Your task to perform on an android device: toggle notifications settings in the gmail app Image 0: 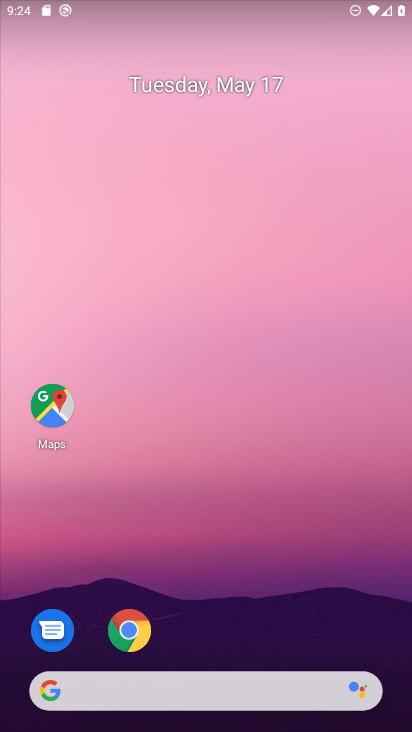
Step 0: drag from (361, 623) to (348, 197)
Your task to perform on an android device: toggle notifications settings in the gmail app Image 1: 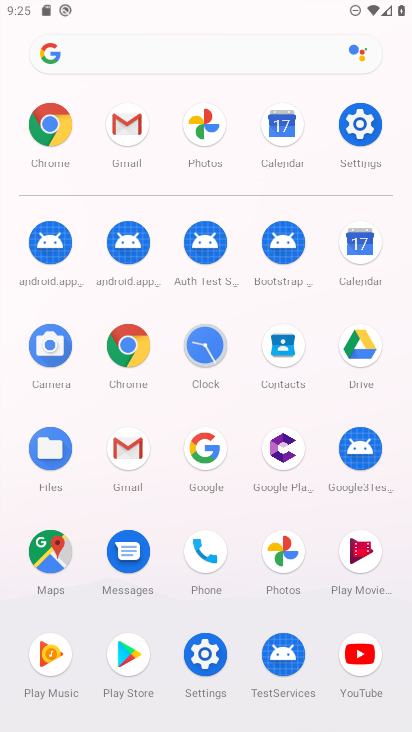
Step 1: click (128, 455)
Your task to perform on an android device: toggle notifications settings in the gmail app Image 2: 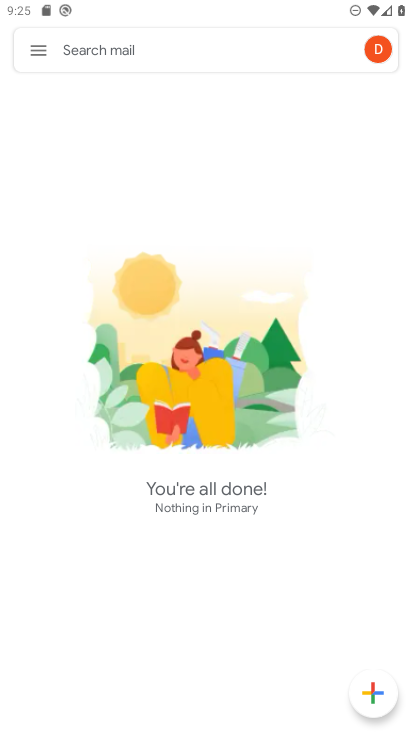
Step 2: click (42, 51)
Your task to perform on an android device: toggle notifications settings in the gmail app Image 3: 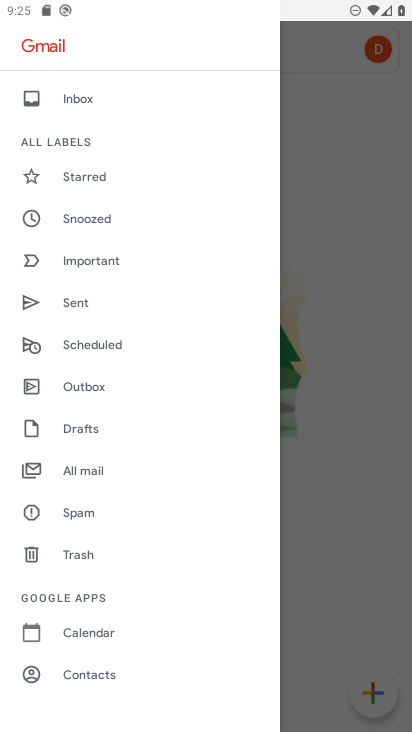
Step 3: drag from (174, 612) to (191, 449)
Your task to perform on an android device: toggle notifications settings in the gmail app Image 4: 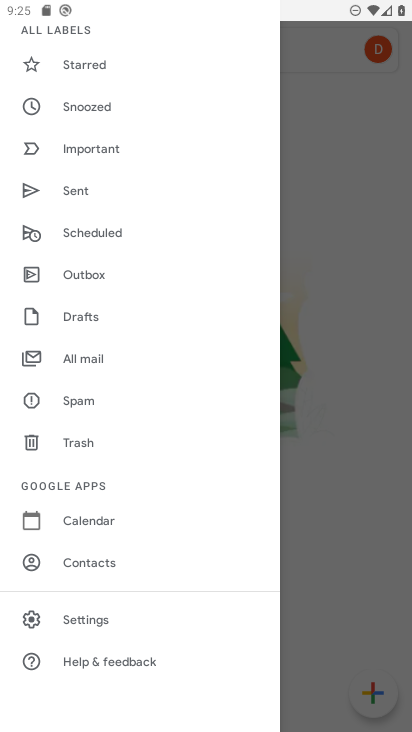
Step 4: click (105, 619)
Your task to perform on an android device: toggle notifications settings in the gmail app Image 5: 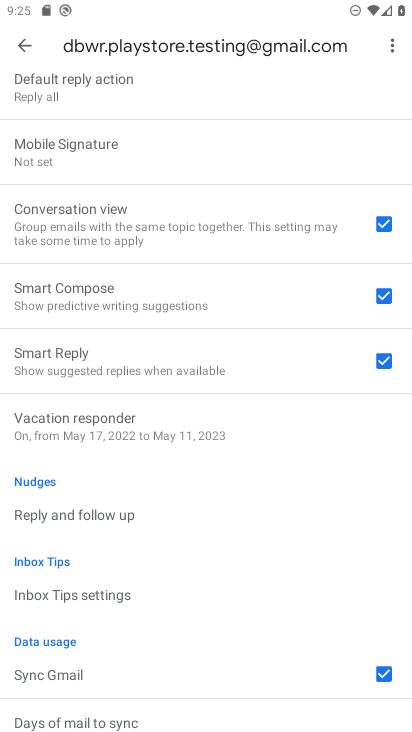
Step 5: drag from (258, 573) to (267, 480)
Your task to perform on an android device: toggle notifications settings in the gmail app Image 6: 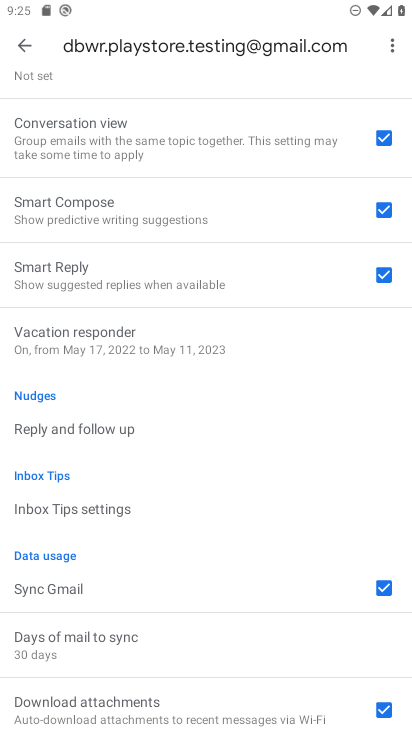
Step 6: drag from (266, 650) to (264, 471)
Your task to perform on an android device: toggle notifications settings in the gmail app Image 7: 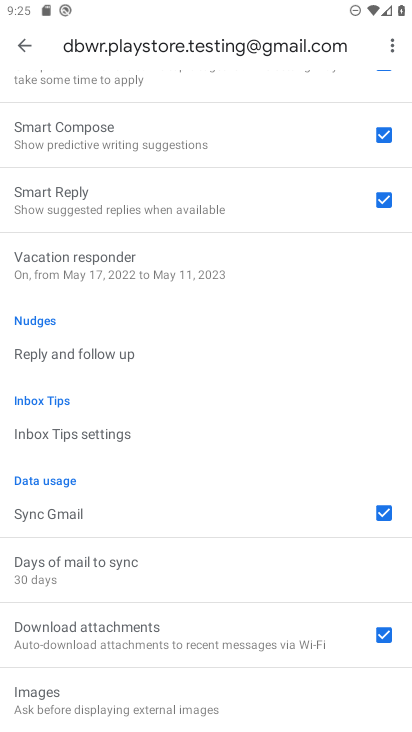
Step 7: drag from (253, 571) to (256, 415)
Your task to perform on an android device: toggle notifications settings in the gmail app Image 8: 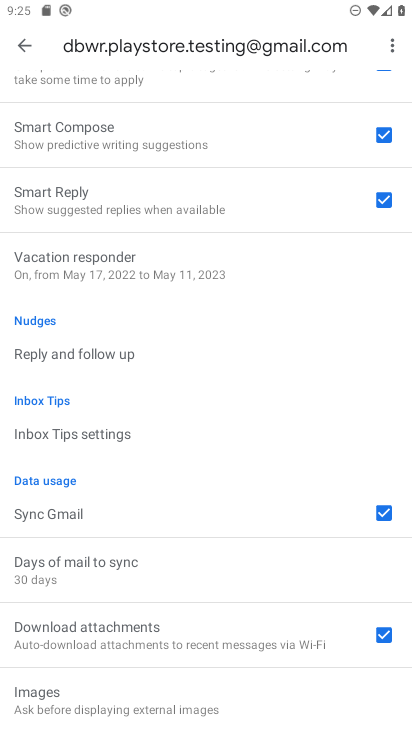
Step 8: drag from (246, 583) to (264, 384)
Your task to perform on an android device: toggle notifications settings in the gmail app Image 9: 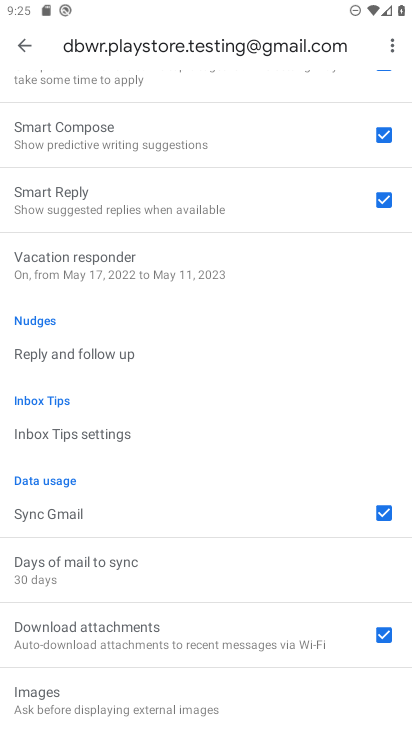
Step 9: drag from (254, 269) to (234, 494)
Your task to perform on an android device: toggle notifications settings in the gmail app Image 10: 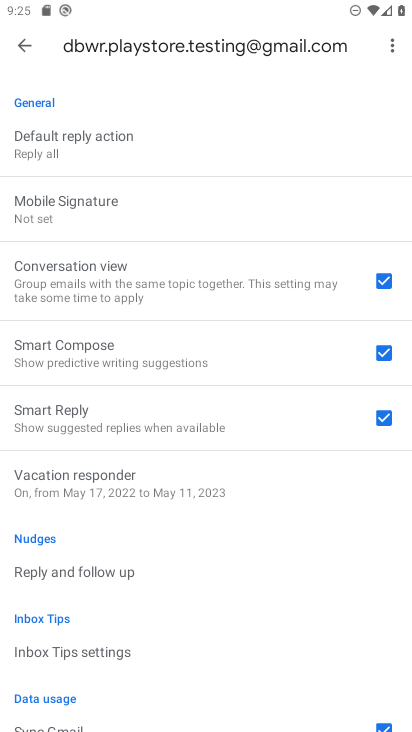
Step 10: drag from (243, 210) to (253, 359)
Your task to perform on an android device: toggle notifications settings in the gmail app Image 11: 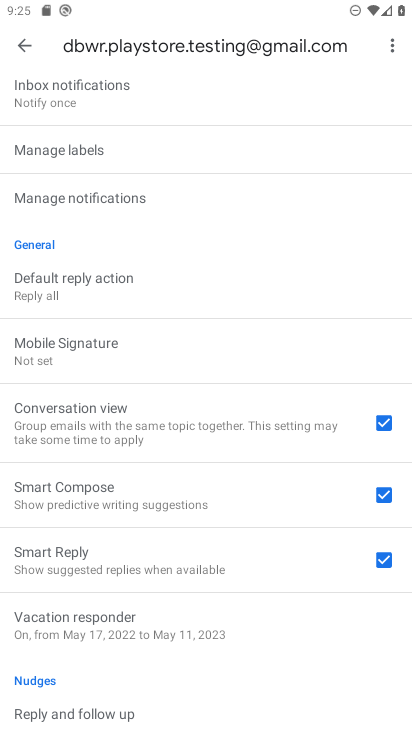
Step 11: drag from (250, 218) to (223, 378)
Your task to perform on an android device: toggle notifications settings in the gmail app Image 12: 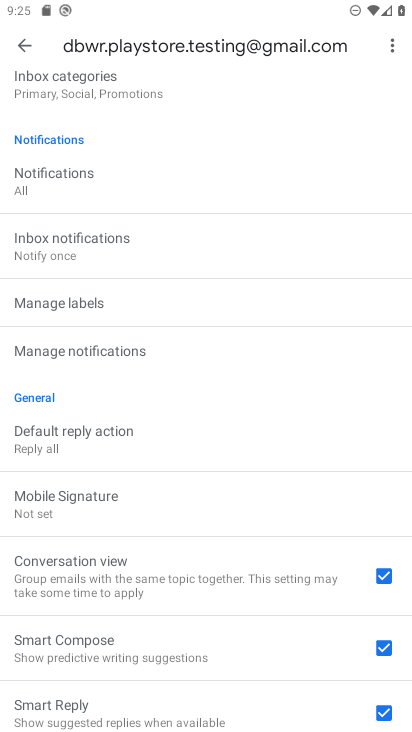
Step 12: drag from (244, 213) to (244, 311)
Your task to perform on an android device: toggle notifications settings in the gmail app Image 13: 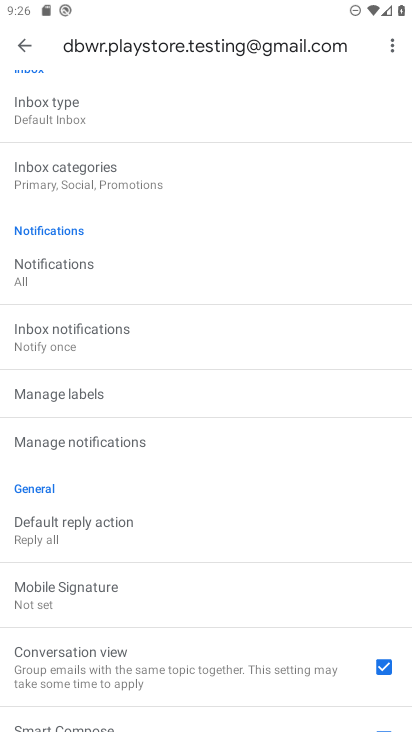
Step 13: click (163, 443)
Your task to perform on an android device: toggle notifications settings in the gmail app Image 14: 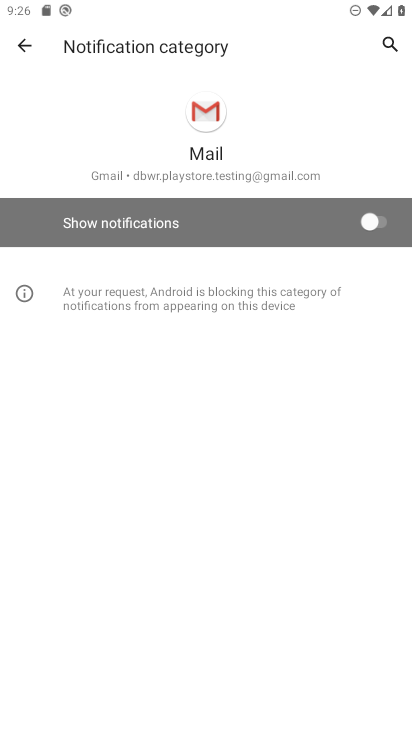
Step 14: click (366, 219)
Your task to perform on an android device: toggle notifications settings in the gmail app Image 15: 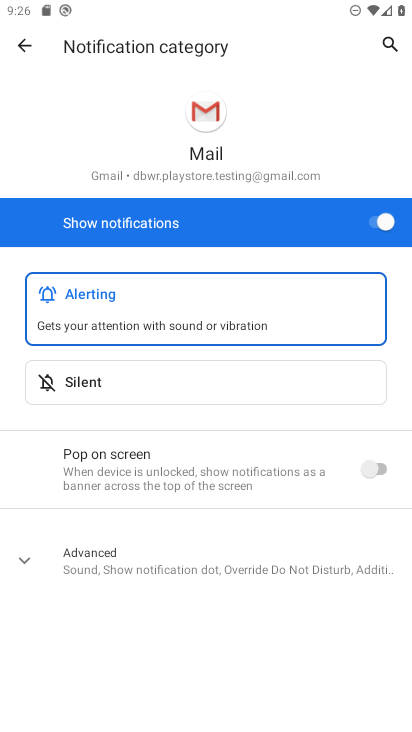
Step 15: task complete